Your task to perform on an android device: turn on priority inbox in the gmail app Image 0: 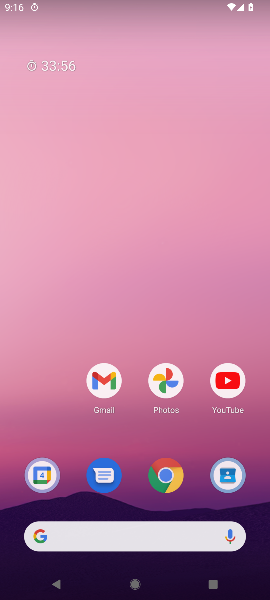
Step 0: press home button
Your task to perform on an android device: turn on priority inbox in the gmail app Image 1: 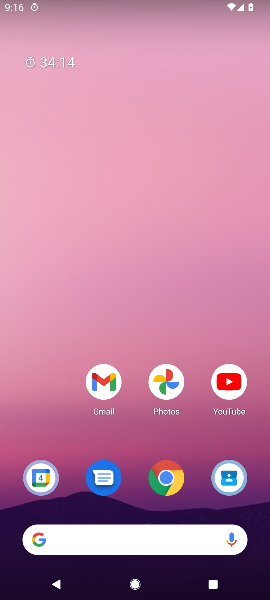
Step 1: click (101, 383)
Your task to perform on an android device: turn on priority inbox in the gmail app Image 2: 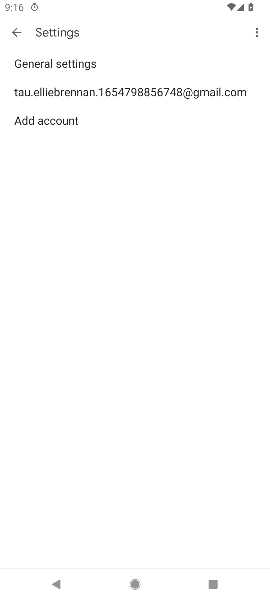
Step 2: click (63, 92)
Your task to perform on an android device: turn on priority inbox in the gmail app Image 3: 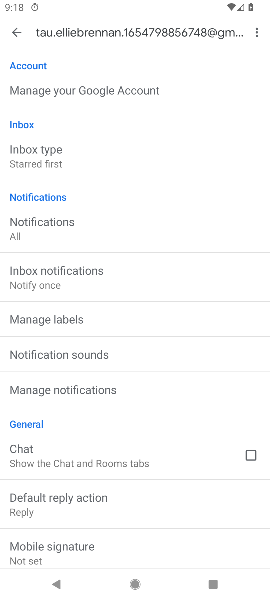
Step 3: click (55, 153)
Your task to perform on an android device: turn on priority inbox in the gmail app Image 4: 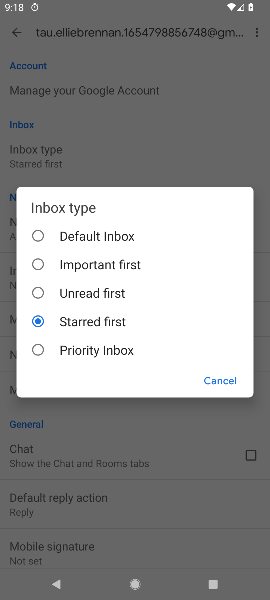
Step 4: click (60, 353)
Your task to perform on an android device: turn on priority inbox in the gmail app Image 5: 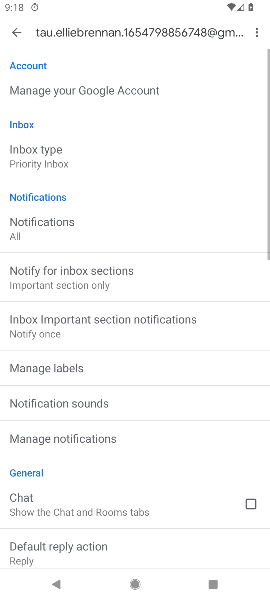
Step 5: task complete